Your task to perform on an android device: set the stopwatch Image 0: 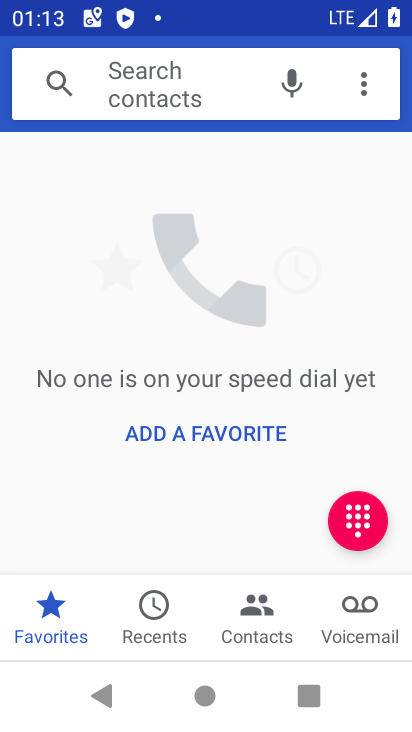
Step 0: press home button
Your task to perform on an android device: set the stopwatch Image 1: 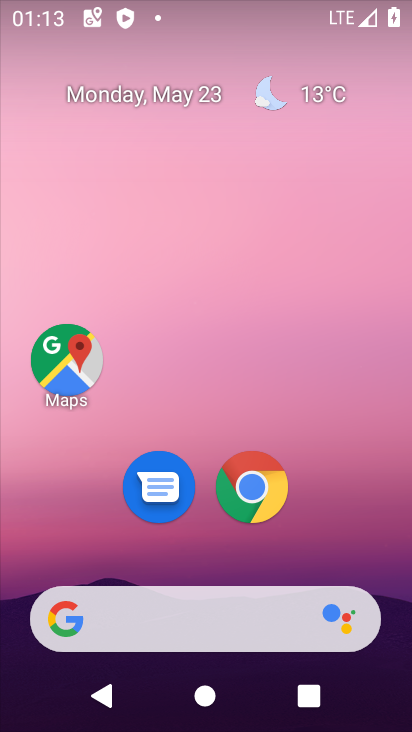
Step 1: drag from (393, 588) to (361, 101)
Your task to perform on an android device: set the stopwatch Image 2: 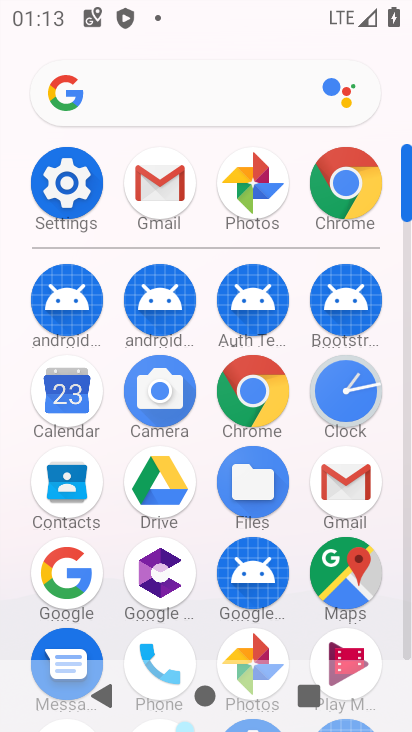
Step 2: click (346, 390)
Your task to perform on an android device: set the stopwatch Image 3: 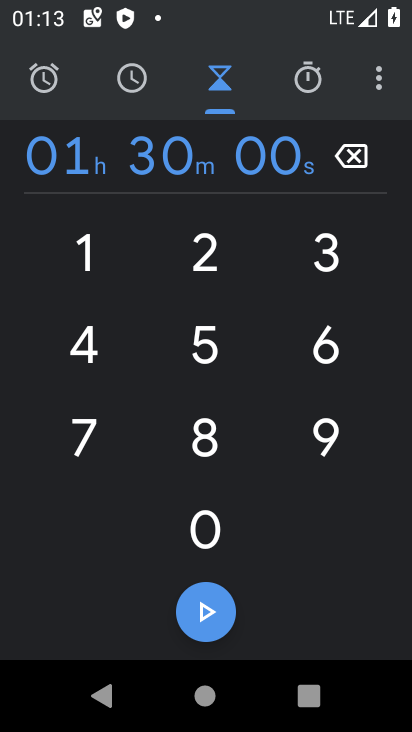
Step 3: click (308, 77)
Your task to perform on an android device: set the stopwatch Image 4: 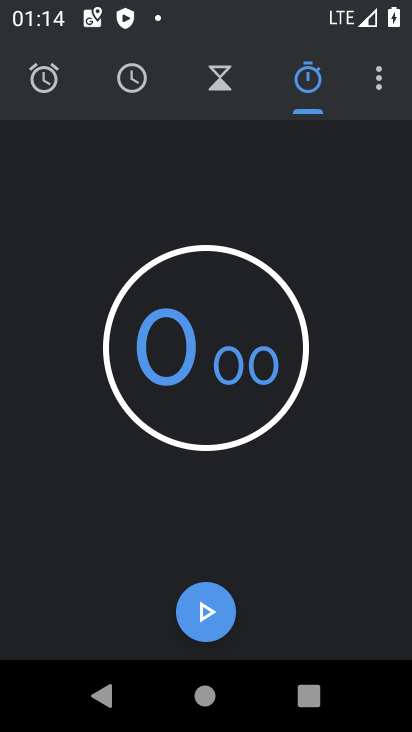
Step 4: task complete